Your task to perform on an android device: How much does a 3 bedroom apartment rent for in San Francisco? Image 0: 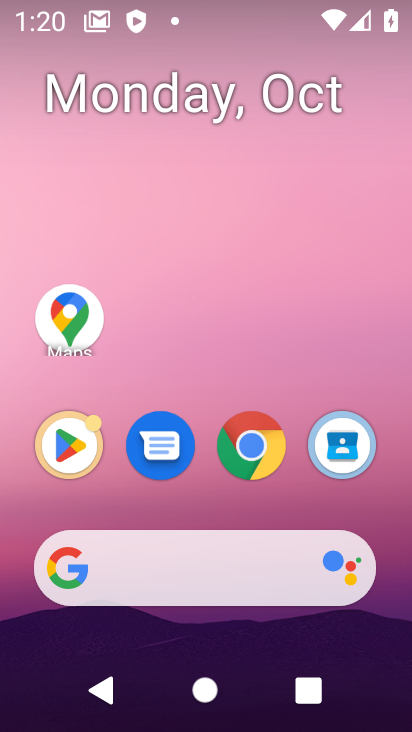
Step 0: click (165, 572)
Your task to perform on an android device: How much does a 3 bedroom apartment rent for in San Francisco? Image 1: 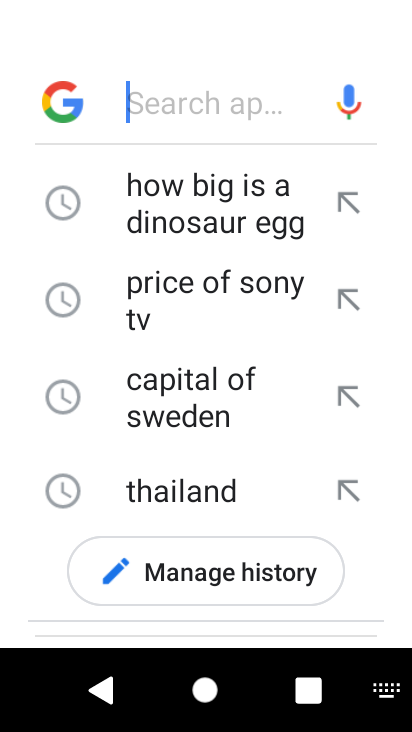
Step 1: type "3 bedroom apartment rent for in San Francisco"
Your task to perform on an android device: How much does a 3 bedroom apartment rent for in San Francisco? Image 2: 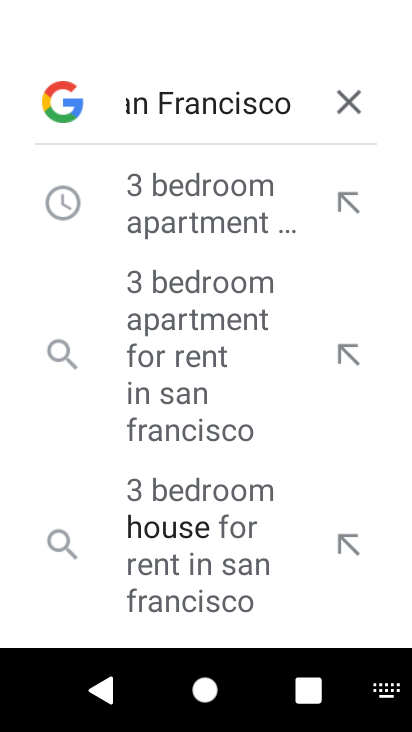
Step 2: type ""
Your task to perform on an android device: How much does a 3 bedroom apartment rent for in San Francisco? Image 3: 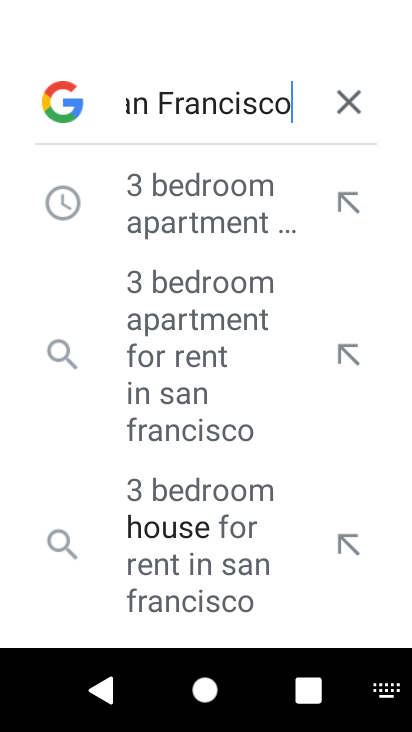
Step 3: click (195, 207)
Your task to perform on an android device: How much does a 3 bedroom apartment rent for in San Francisco? Image 4: 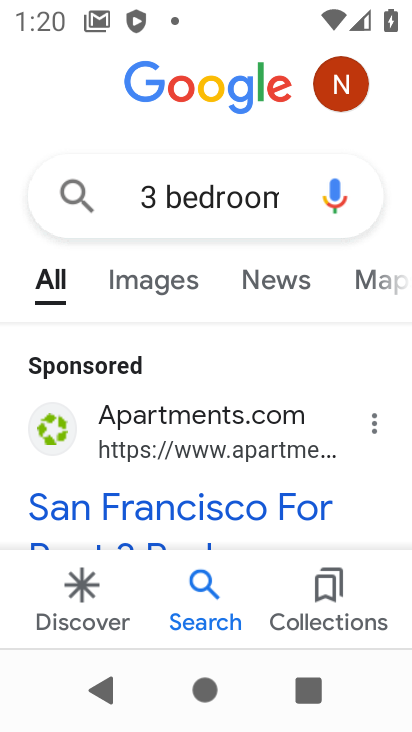
Step 4: drag from (212, 481) to (186, 152)
Your task to perform on an android device: How much does a 3 bedroom apartment rent for in San Francisco? Image 5: 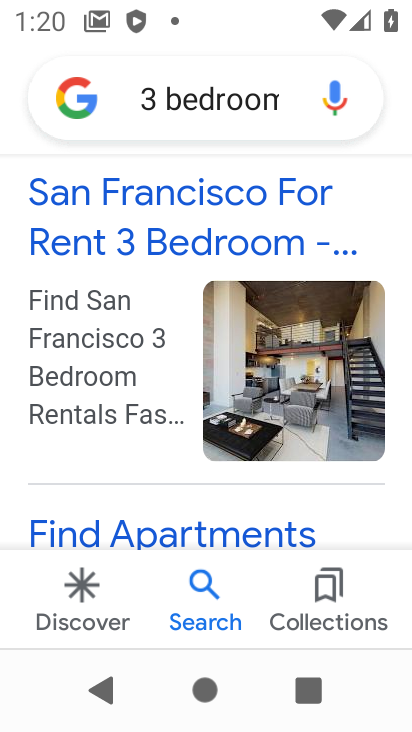
Step 5: drag from (237, 508) to (243, 120)
Your task to perform on an android device: How much does a 3 bedroom apartment rent for in San Francisco? Image 6: 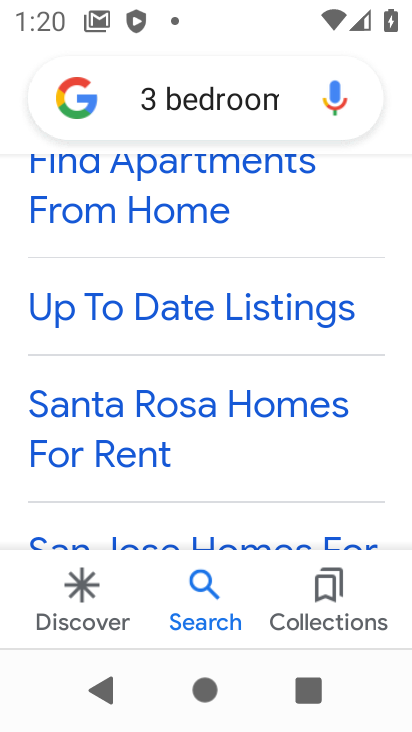
Step 6: drag from (228, 486) to (206, 139)
Your task to perform on an android device: How much does a 3 bedroom apartment rent for in San Francisco? Image 7: 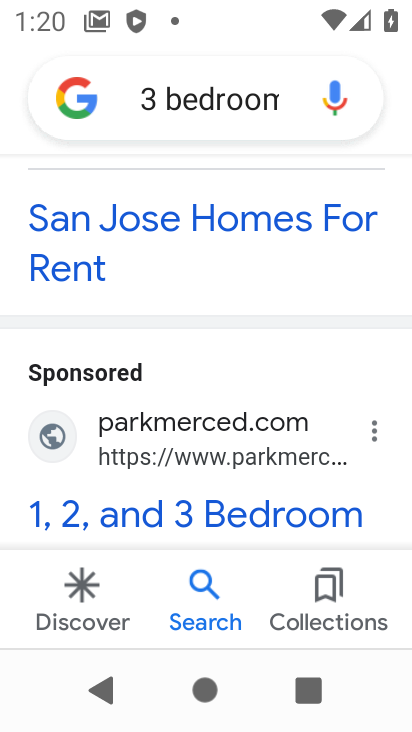
Step 7: drag from (233, 419) to (215, 165)
Your task to perform on an android device: How much does a 3 bedroom apartment rent for in San Francisco? Image 8: 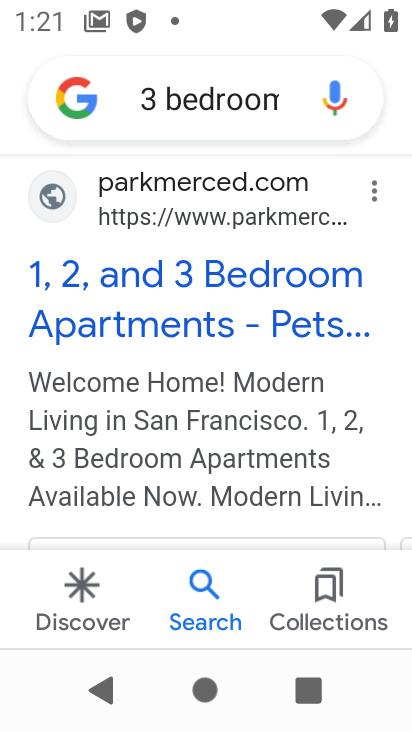
Step 8: drag from (233, 388) to (224, 227)
Your task to perform on an android device: How much does a 3 bedroom apartment rent for in San Francisco? Image 9: 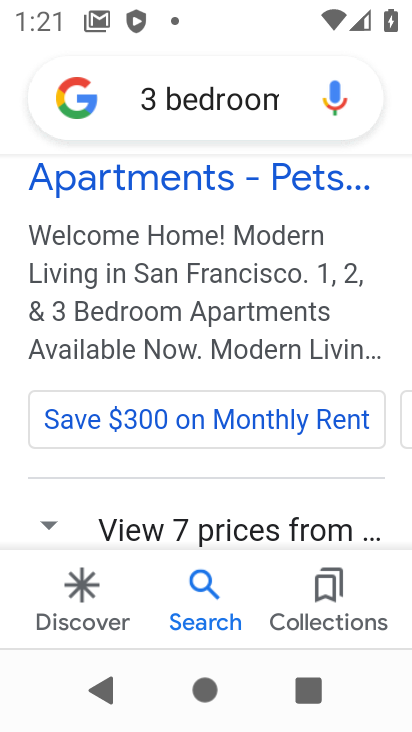
Step 9: drag from (218, 251) to (250, 463)
Your task to perform on an android device: How much does a 3 bedroom apartment rent for in San Francisco? Image 10: 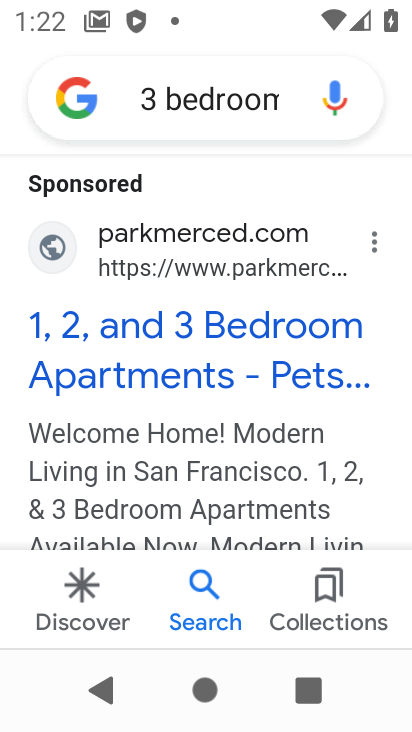
Step 10: click (221, 361)
Your task to perform on an android device: How much does a 3 bedroom apartment rent for in San Francisco? Image 11: 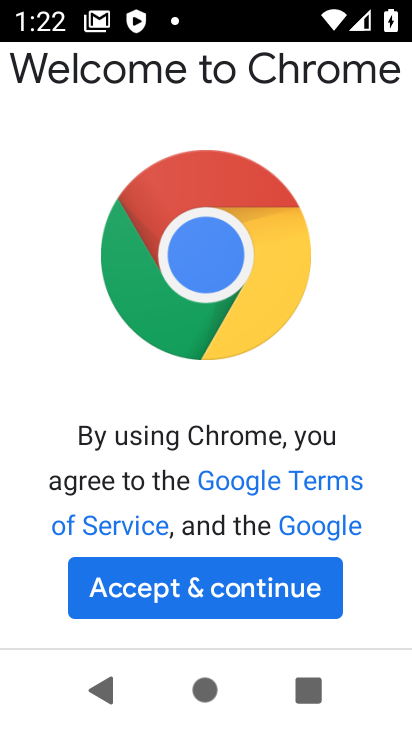
Step 11: click (271, 590)
Your task to perform on an android device: How much does a 3 bedroom apartment rent for in San Francisco? Image 12: 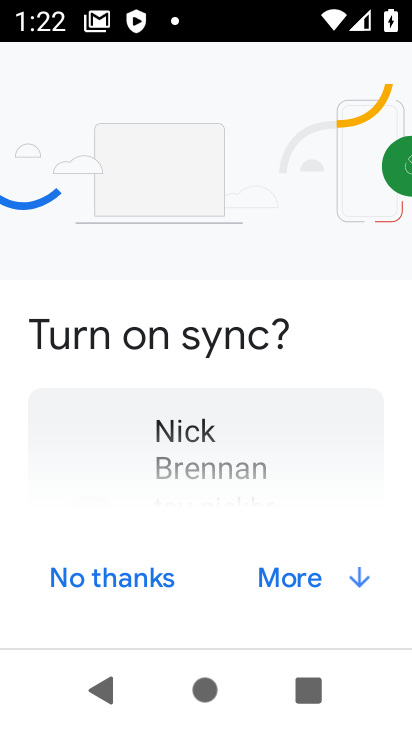
Step 12: click (287, 580)
Your task to perform on an android device: How much does a 3 bedroom apartment rent for in San Francisco? Image 13: 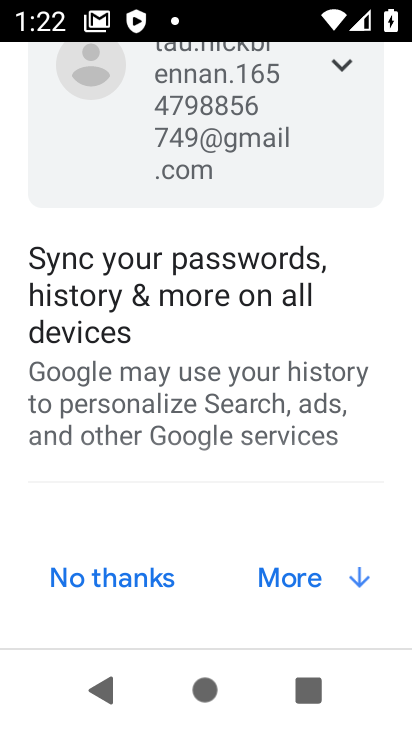
Step 13: click (287, 580)
Your task to perform on an android device: How much does a 3 bedroom apartment rent for in San Francisco? Image 14: 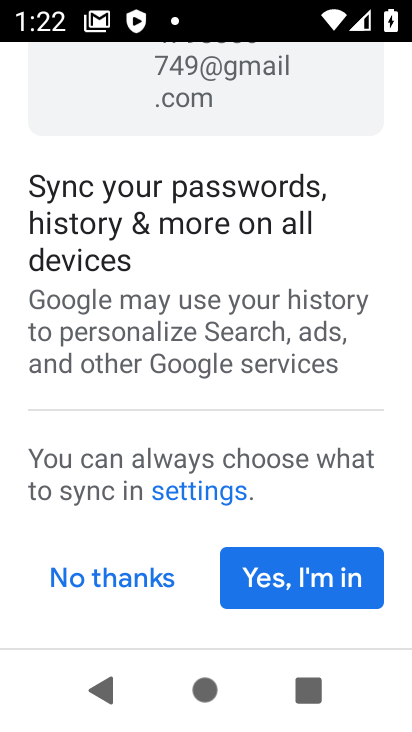
Step 14: click (287, 580)
Your task to perform on an android device: How much does a 3 bedroom apartment rent for in San Francisco? Image 15: 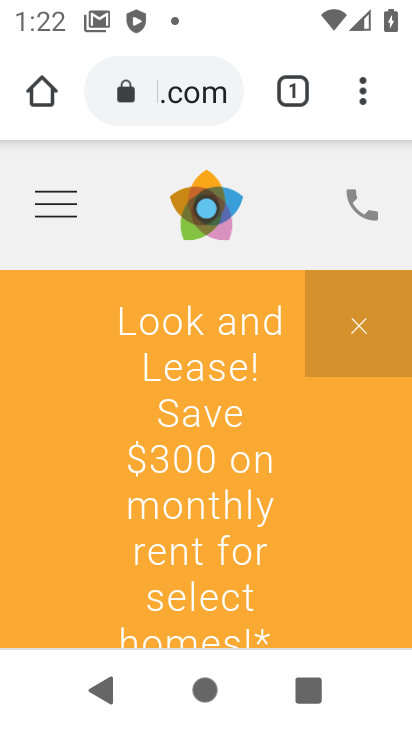
Step 15: task complete